Your task to perform on an android device: change the clock display to analog Image 0: 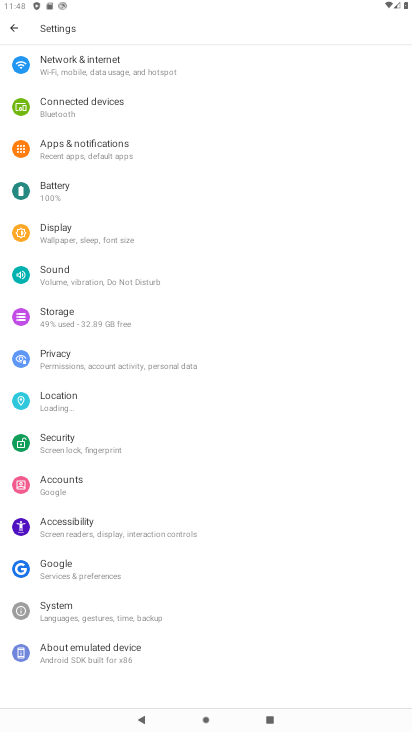
Step 0: press home button
Your task to perform on an android device: change the clock display to analog Image 1: 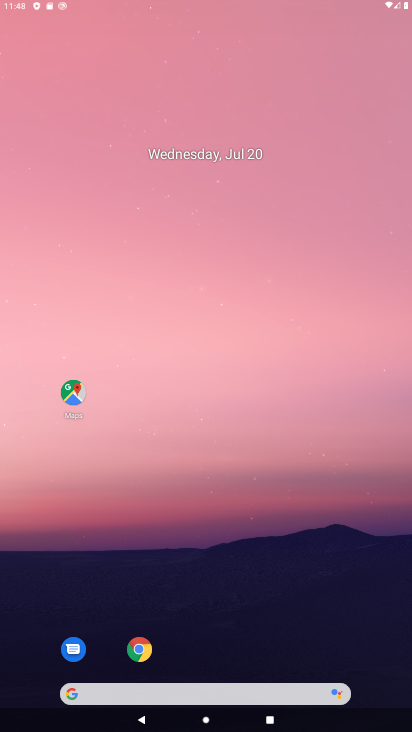
Step 1: drag from (239, 569) to (166, 96)
Your task to perform on an android device: change the clock display to analog Image 2: 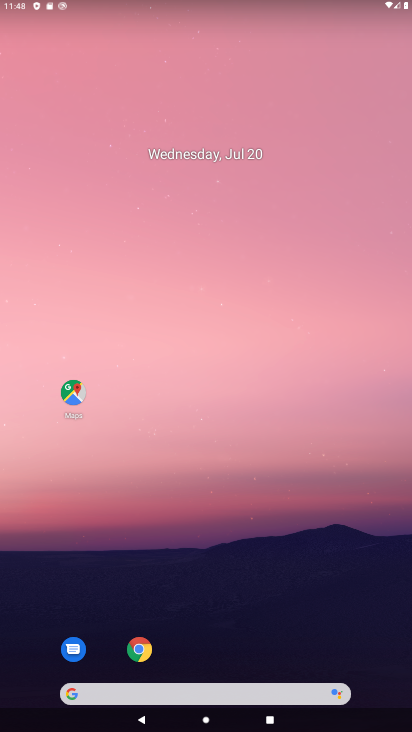
Step 2: drag from (306, 650) to (407, 0)
Your task to perform on an android device: change the clock display to analog Image 3: 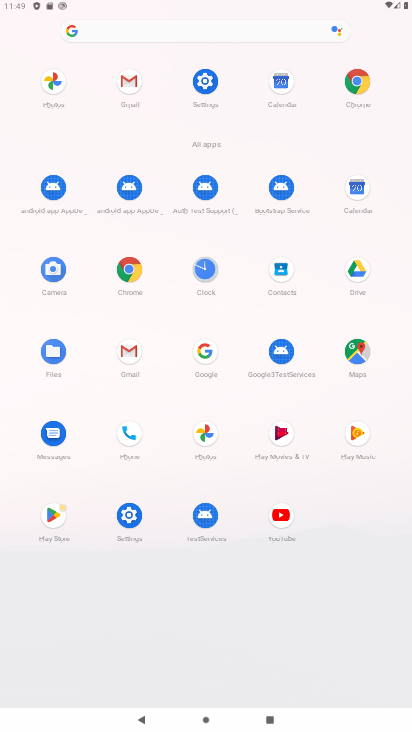
Step 3: click (198, 275)
Your task to perform on an android device: change the clock display to analog Image 4: 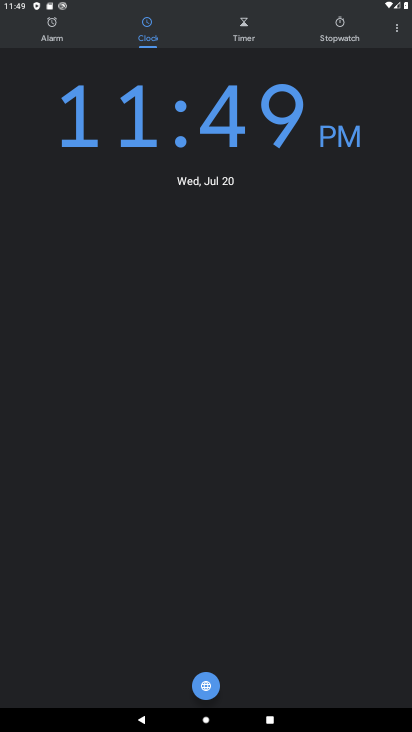
Step 4: click (393, 26)
Your task to perform on an android device: change the clock display to analog Image 5: 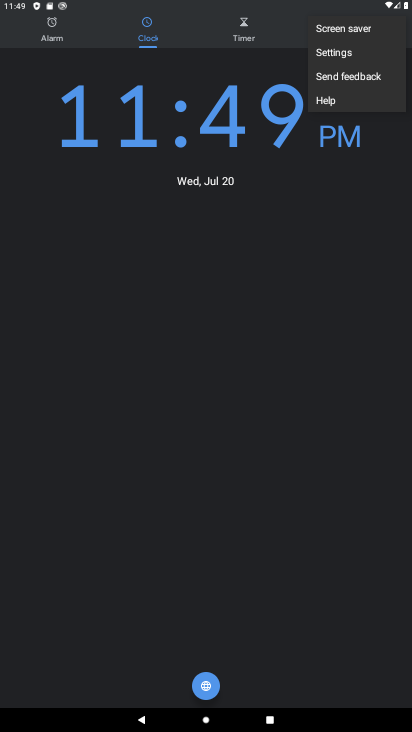
Step 5: click (321, 60)
Your task to perform on an android device: change the clock display to analog Image 6: 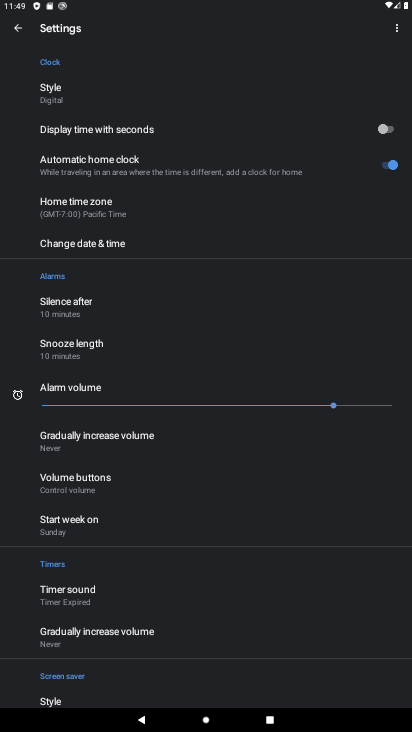
Step 6: click (55, 102)
Your task to perform on an android device: change the clock display to analog Image 7: 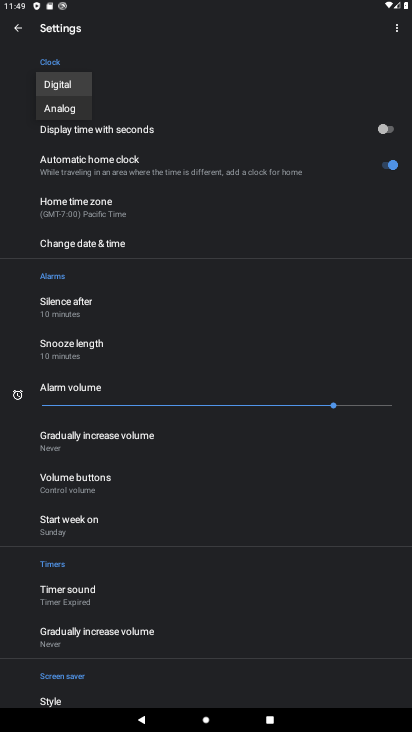
Step 7: click (77, 117)
Your task to perform on an android device: change the clock display to analog Image 8: 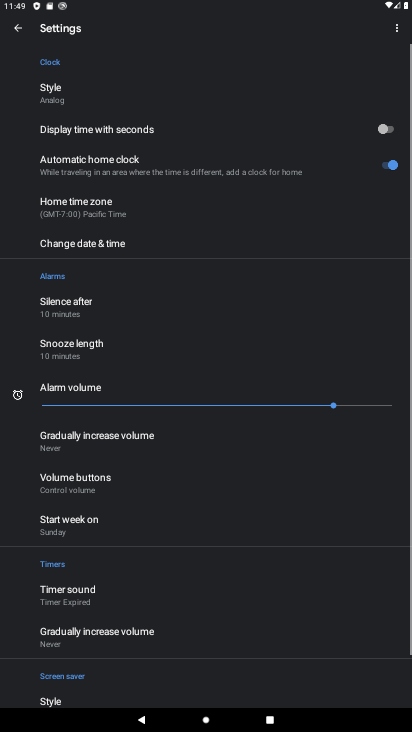
Step 8: task complete